Your task to perform on an android device: change the clock display to analog Image 0: 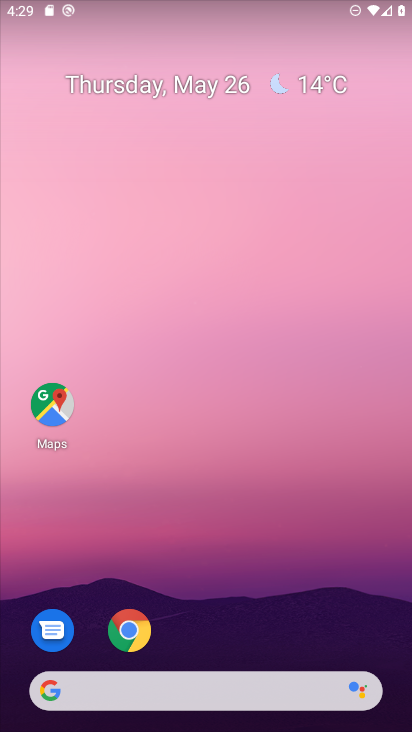
Step 0: drag from (218, 574) to (335, 134)
Your task to perform on an android device: change the clock display to analog Image 1: 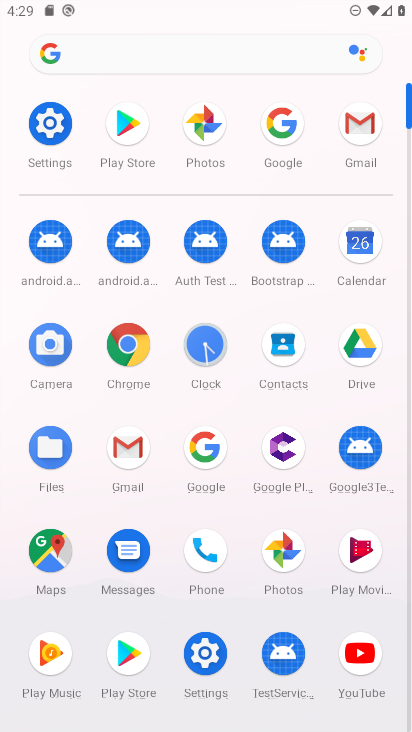
Step 1: click (206, 344)
Your task to perform on an android device: change the clock display to analog Image 2: 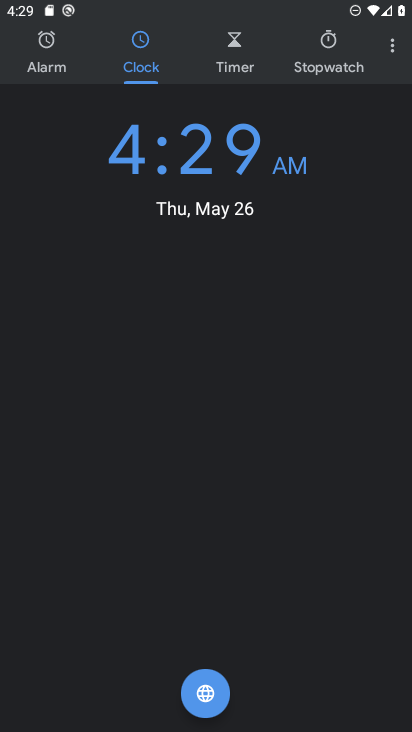
Step 2: click (395, 47)
Your task to perform on an android device: change the clock display to analog Image 3: 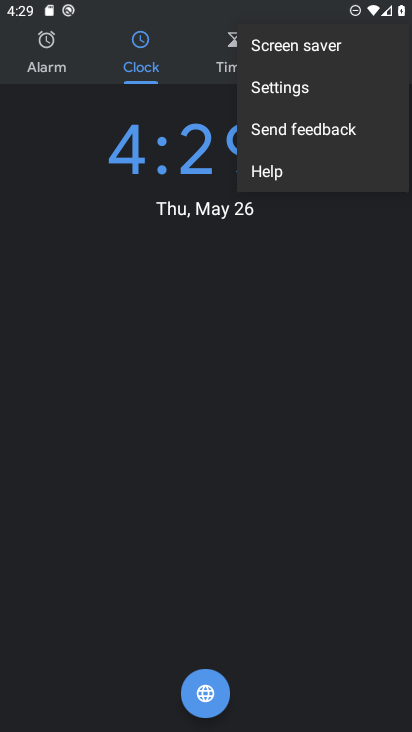
Step 3: click (318, 85)
Your task to perform on an android device: change the clock display to analog Image 4: 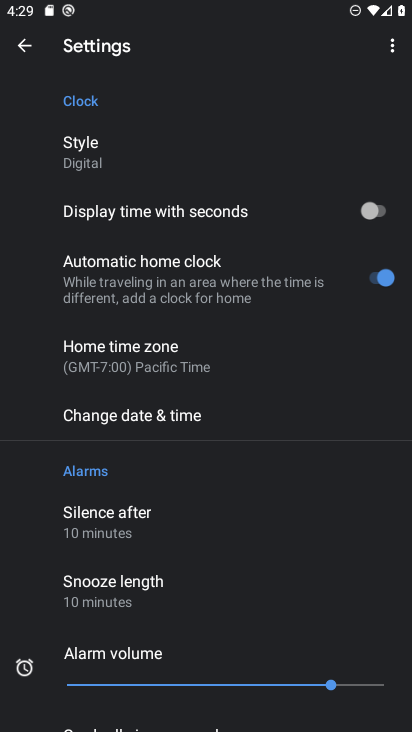
Step 4: click (134, 162)
Your task to perform on an android device: change the clock display to analog Image 5: 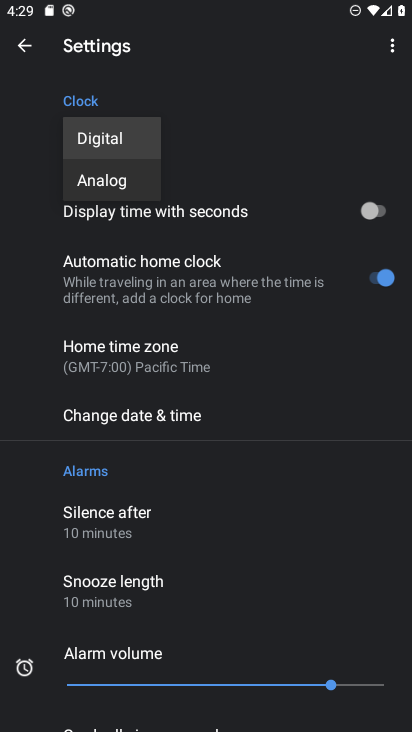
Step 5: click (123, 175)
Your task to perform on an android device: change the clock display to analog Image 6: 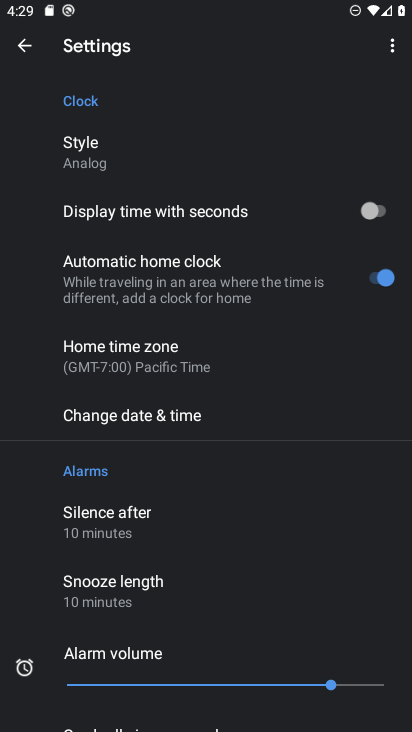
Step 6: task complete